Your task to perform on an android device: toggle show notifications on the lock screen Image 0: 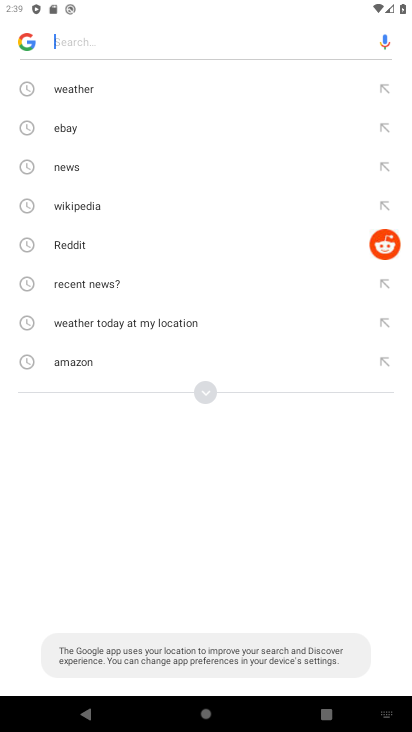
Step 0: press home button
Your task to perform on an android device: toggle show notifications on the lock screen Image 1: 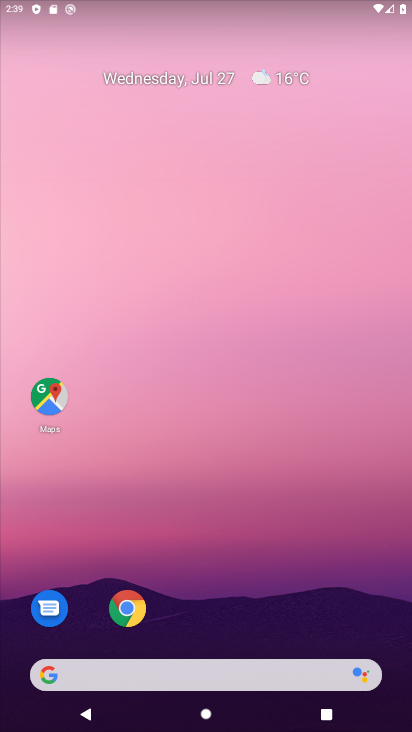
Step 1: drag from (273, 628) to (308, 238)
Your task to perform on an android device: toggle show notifications on the lock screen Image 2: 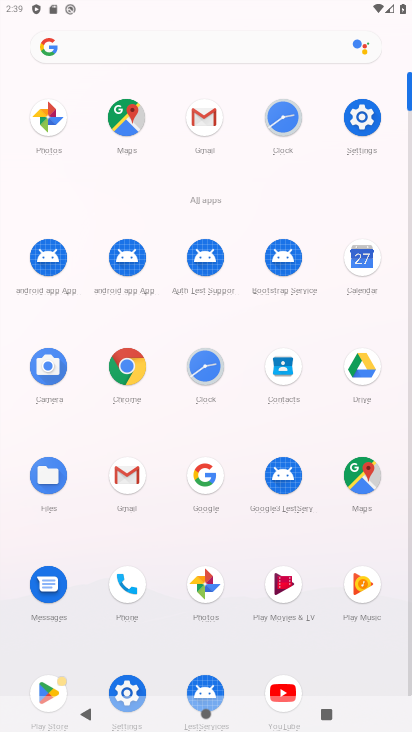
Step 2: click (122, 675)
Your task to perform on an android device: toggle show notifications on the lock screen Image 3: 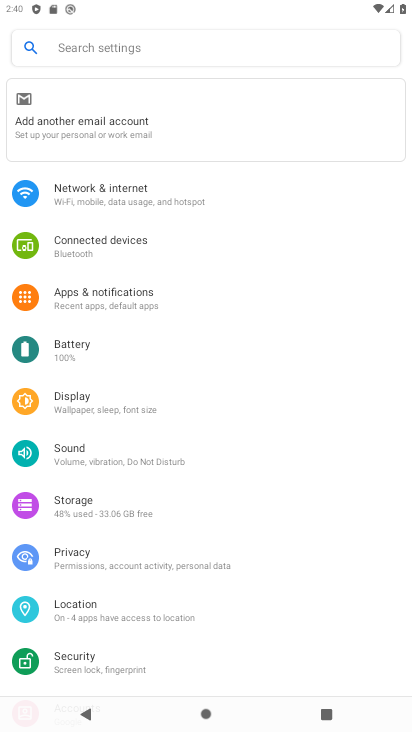
Step 3: click (158, 291)
Your task to perform on an android device: toggle show notifications on the lock screen Image 4: 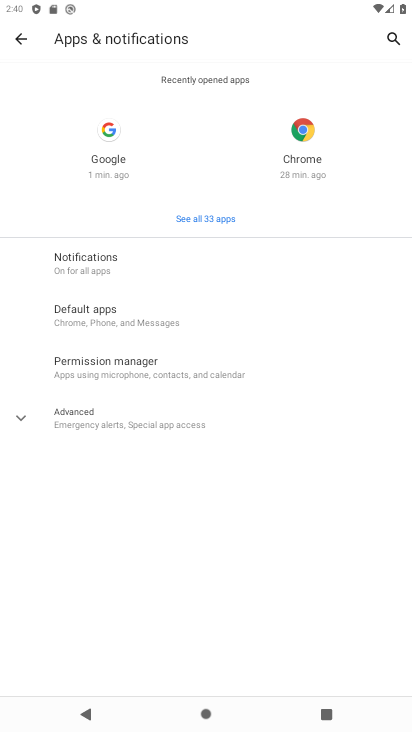
Step 4: click (159, 270)
Your task to perform on an android device: toggle show notifications on the lock screen Image 5: 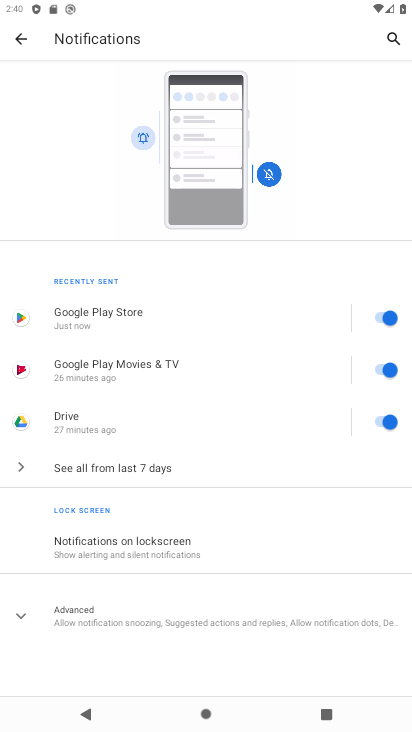
Step 5: click (164, 548)
Your task to perform on an android device: toggle show notifications on the lock screen Image 6: 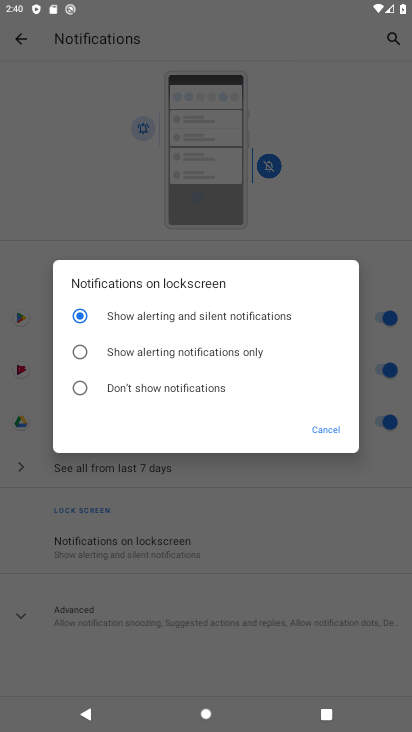
Step 6: click (213, 359)
Your task to perform on an android device: toggle show notifications on the lock screen Image 7: 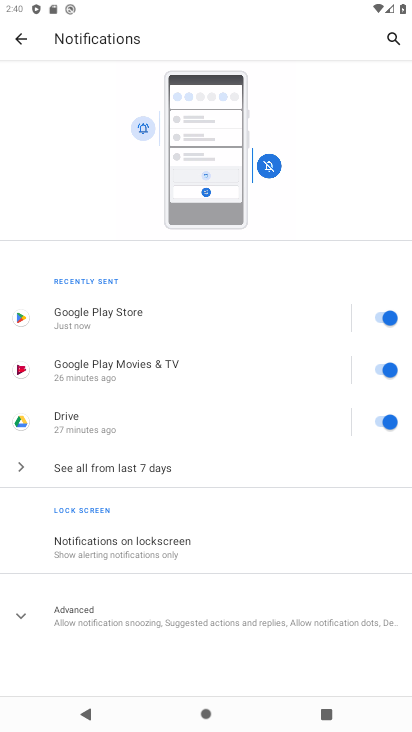
Step 7: task complete